Your task to perform on an android device: toggle improve location accuracy Image 0: 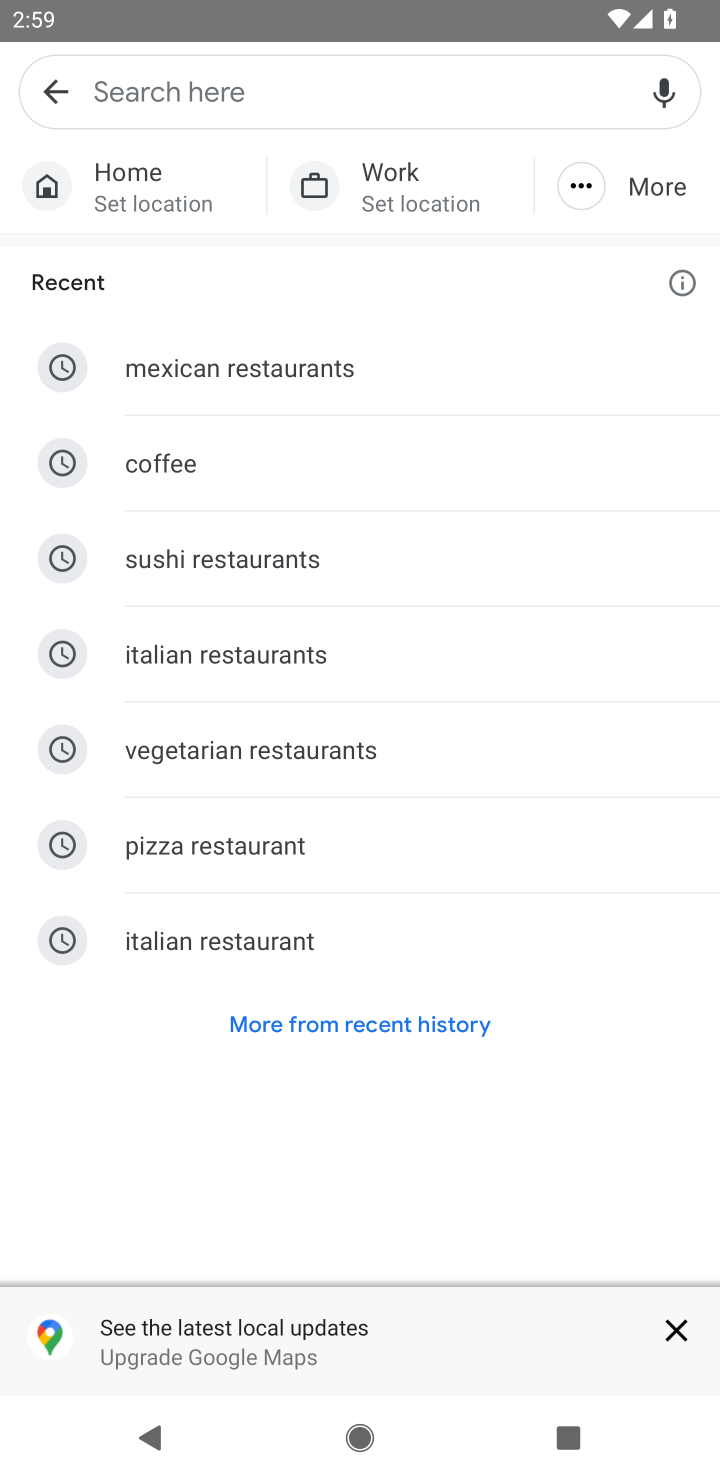
Step 0: press home button
Your task to perform on an android device: toggle improve location accuracy Image 1: 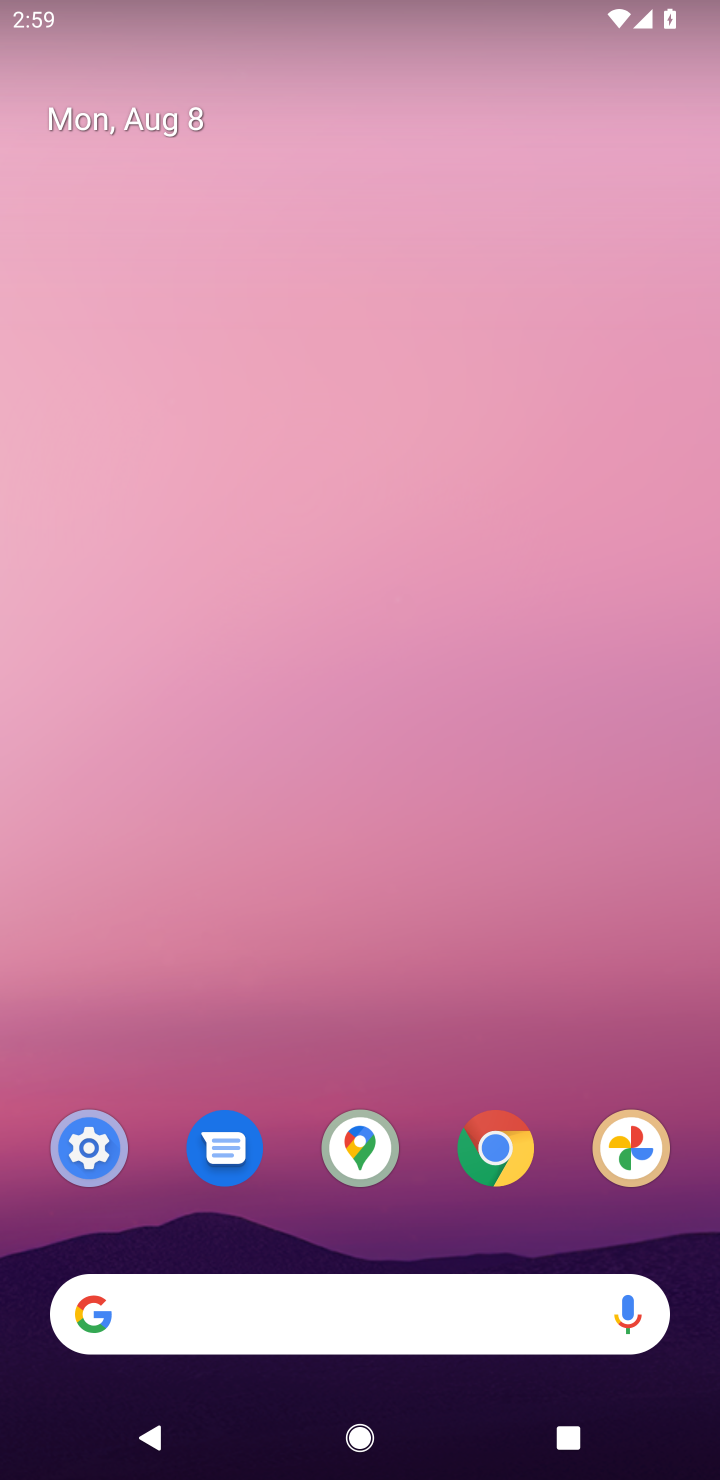
Step 1: click (80, 1156)
Your task to perform on an android device: toggle improve location accuracy Image 2: 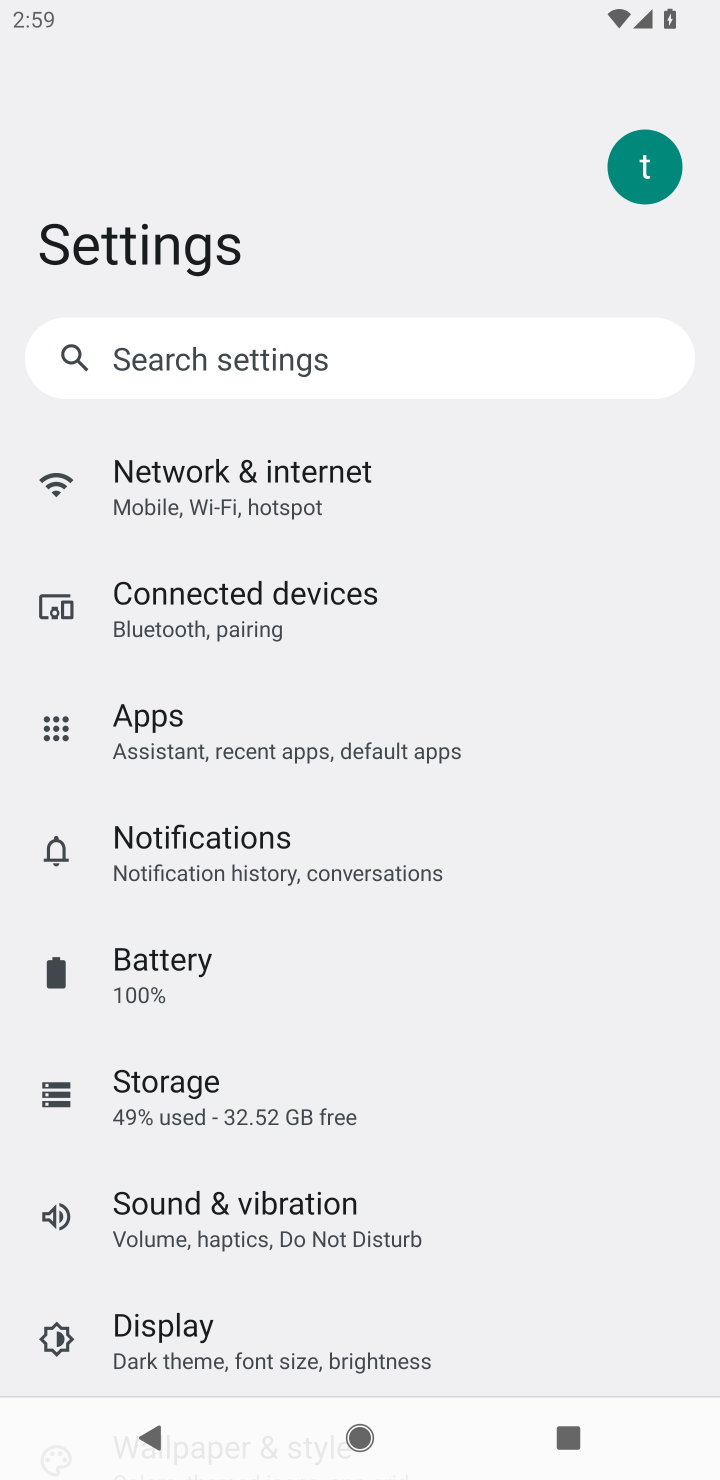
Step 2: drag from (314, 1318) to (302, 393)
Your task to perform on an android device: toggle improve location accuracy Image 3: 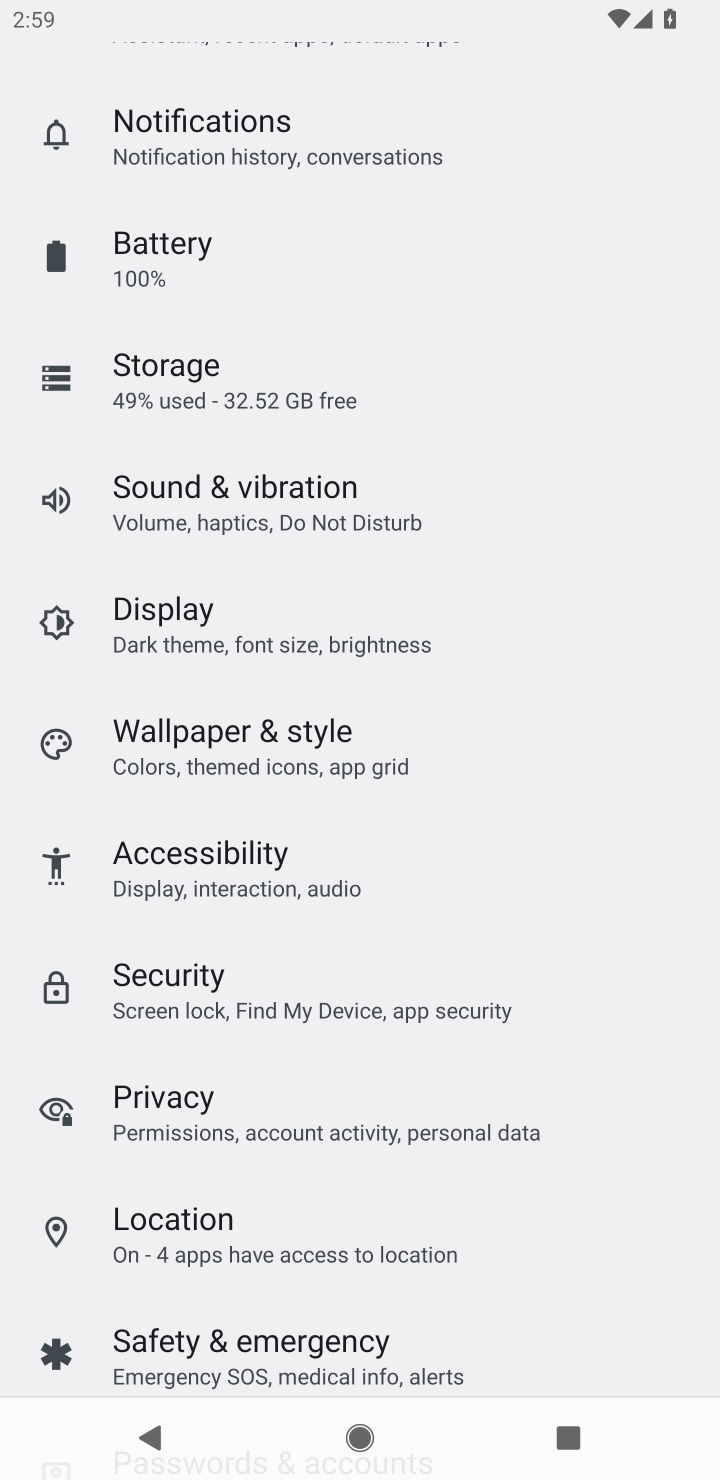
Step 3: click (308, 1234)
Your task to perform on an android device: toggle improve location accuracy Image 4: 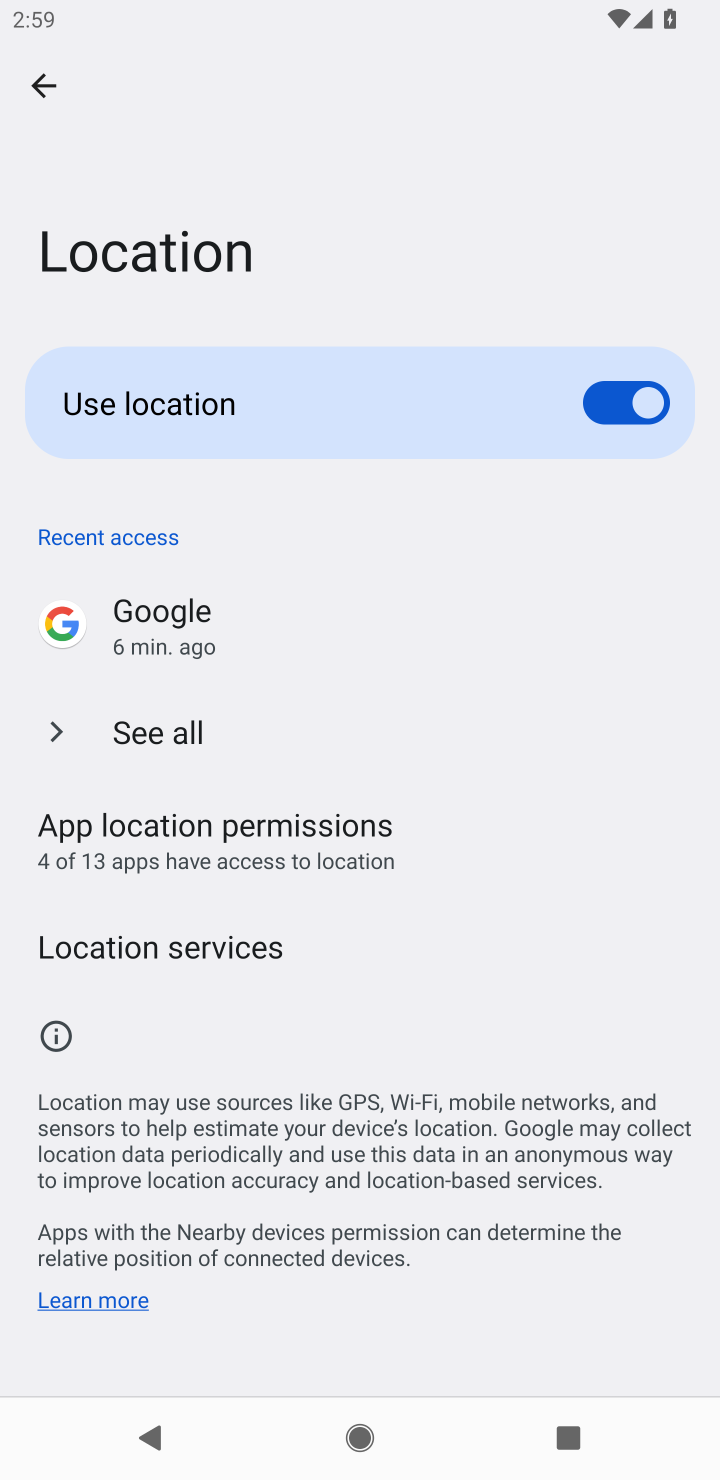
Step 4: click (226, 948)
Your task to perform on an android device: toggle improve location accuracy Image 5: 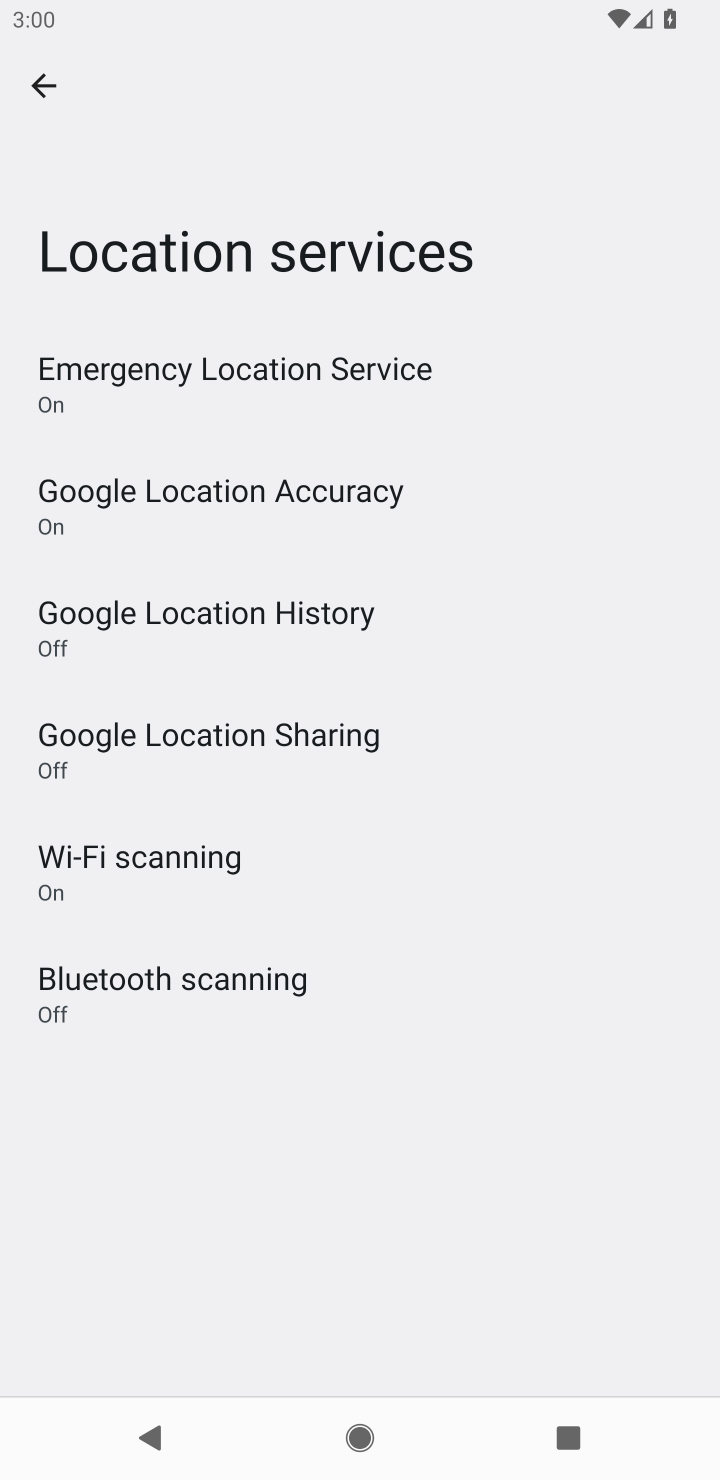
Step 5: click (348, 464)
Your task to perform on an android device: toggle improve location accuracy Image 6: 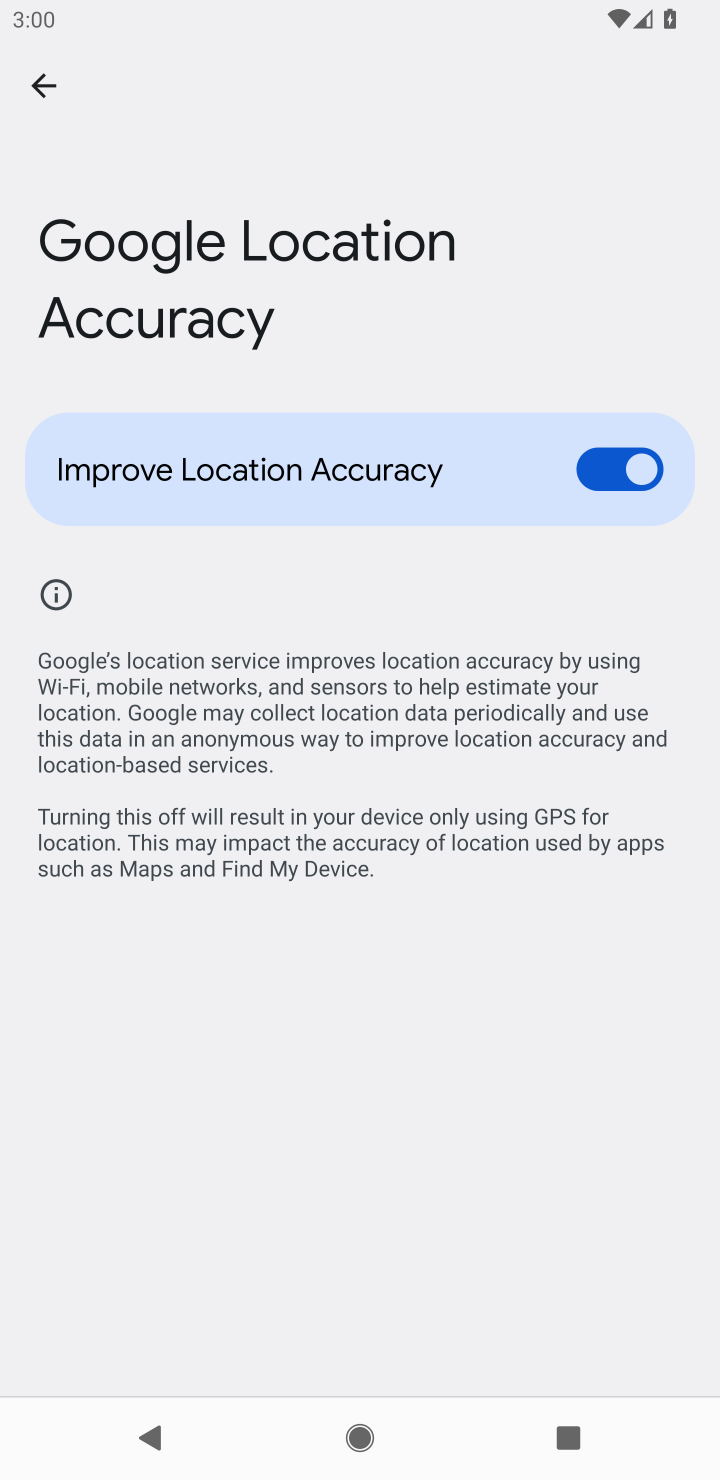
Step 6: click (626, 462)
Your task to perform on an android device: toggle improve location accuracy Image 7: 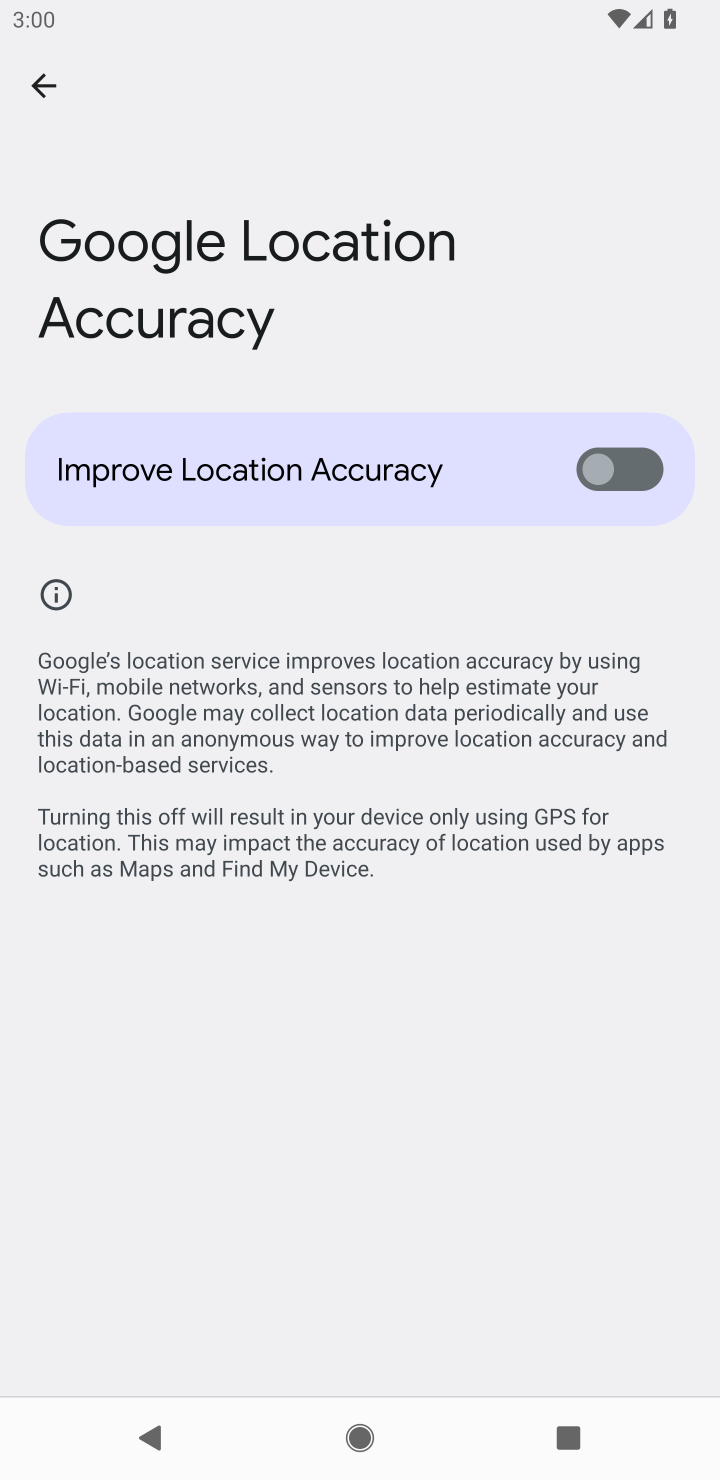
Step 7: task complete